Your task to perform on an android device: turn off javascript in the chrome app Image 0: 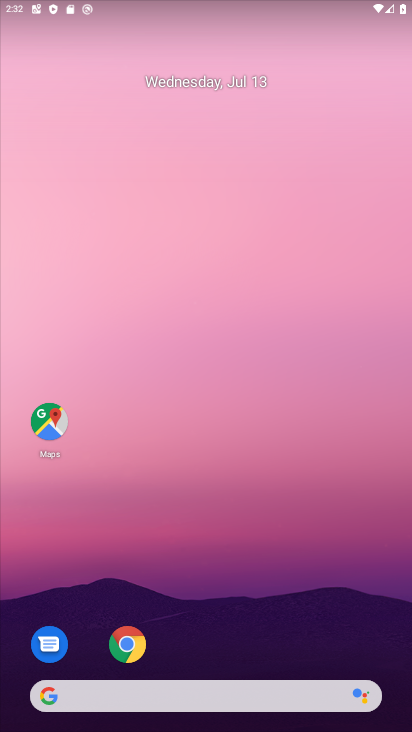
Step 0: drag from (305, 609) to (277, 63)
Your task to perform on an android device: turn off javascript in the chrome app Image 1: 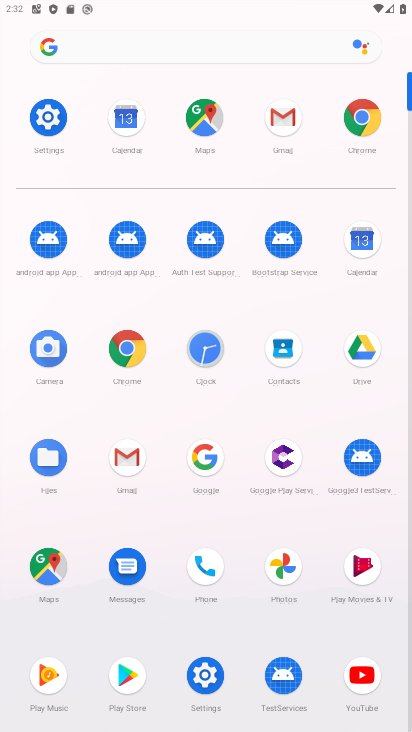
Step 1: click (359, 113)
Your task to perform on an android device: turn off javascript in the chrome app Image 2: 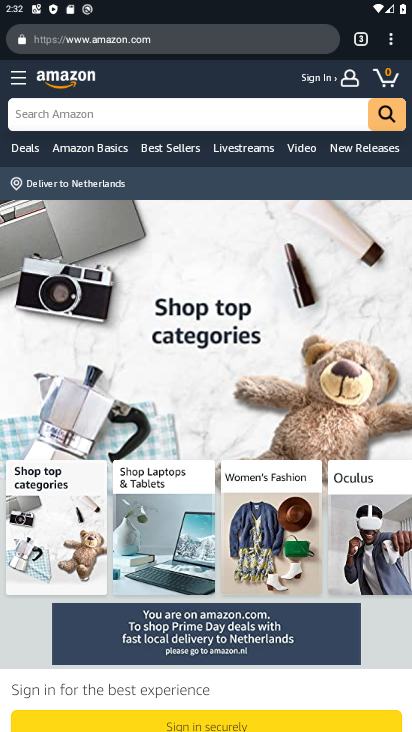
Step 2: click (390, 35)
Your task to perform on an android device: turn off javascript in the chrome app Image 3: 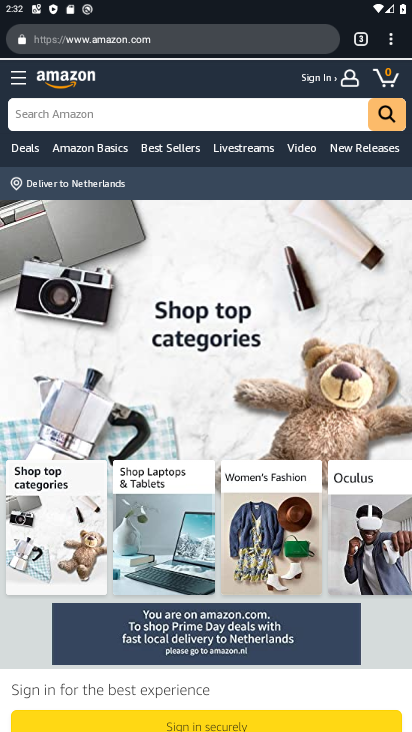
Step 3: drag from (390, 43) to (248, 476)
Your task to perform on an android device: turn off javascript in the chrome app Image 4: 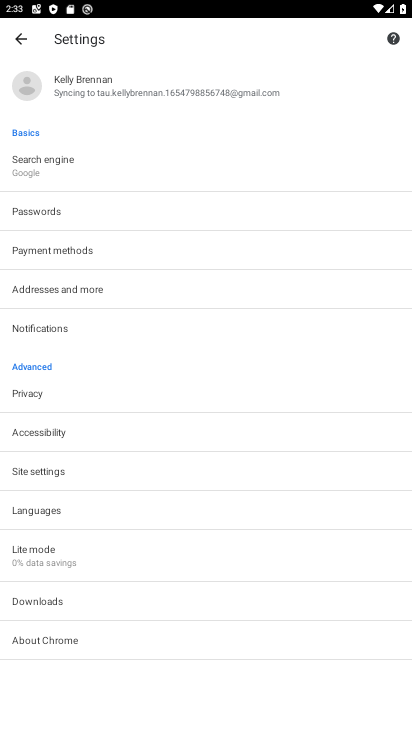
Step 4: click (66, 468)
Your task to perform on an android device: turn off javascript in the chrome app Image 5: 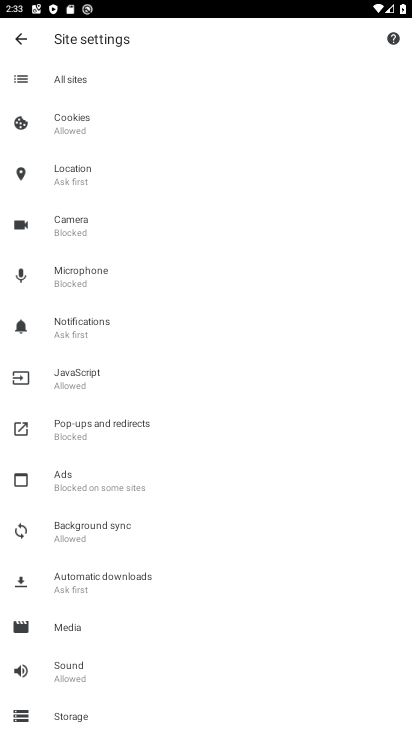
Step 5: click (84, 377)
Your task to perform on an android device: turn off javascript in the chrome app Image 6: 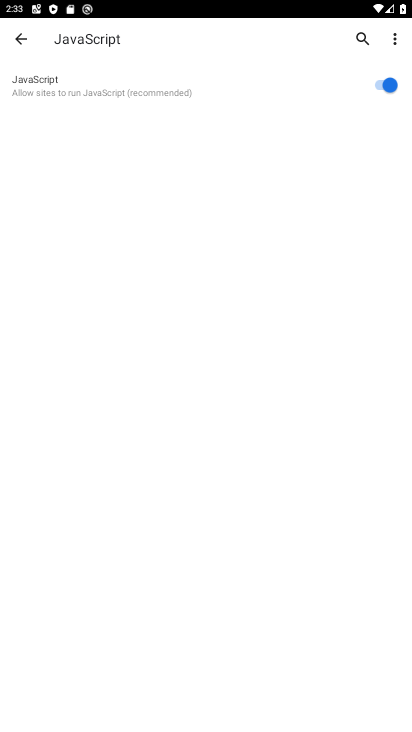
Step 6: click (384, 71)
Your task to perform on an android device: turn off javascript in the chrome app Image 7: 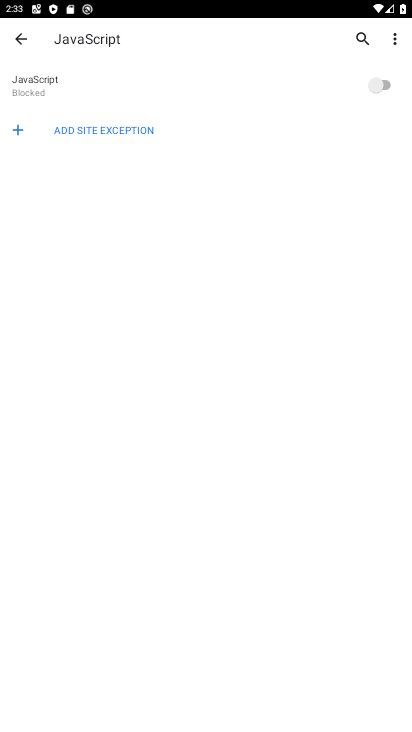
Step 7: task complete